Your task to perform on an android device: Go to accessibility settings Image 0: 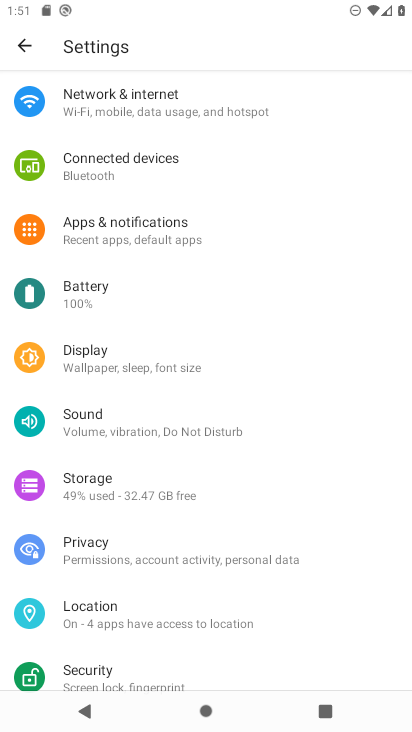
Step 0: drag from (140, 633) to (126, 146)
Your task to perform on an android device: Go to accessibility settings Image 1: 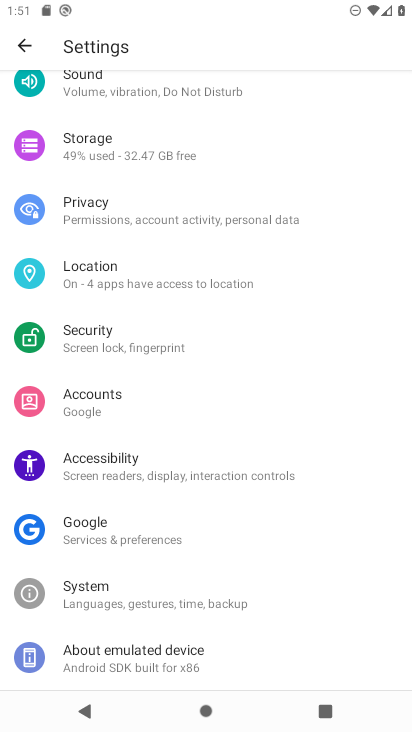
Step 1: click (215, 465)
Your task to perform on an android device: Go to accessibility settings Image 2: 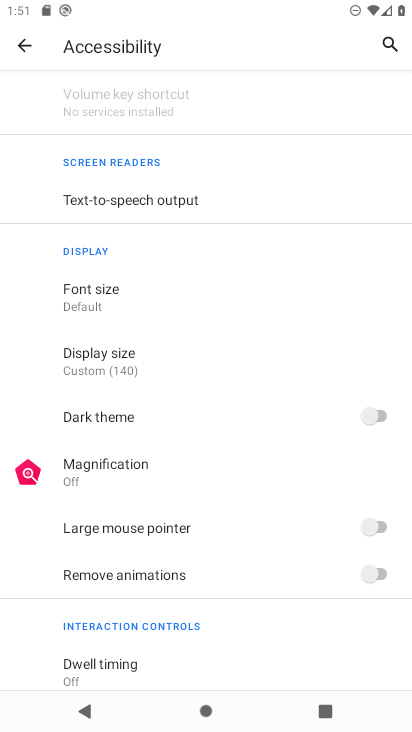
Step 2: task complete